Your task to perform on an android device: toggle show notifications on the lock screen Image 0: 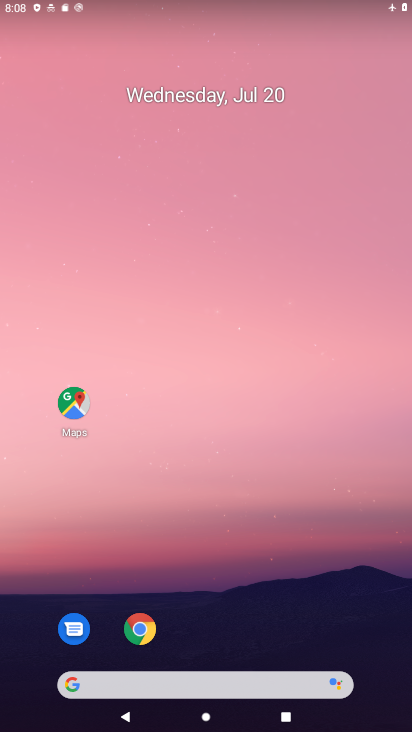
Step 0: click (313, 298)
Your task to perform on an android device: toggle show notifications on the lock screen Image 1: 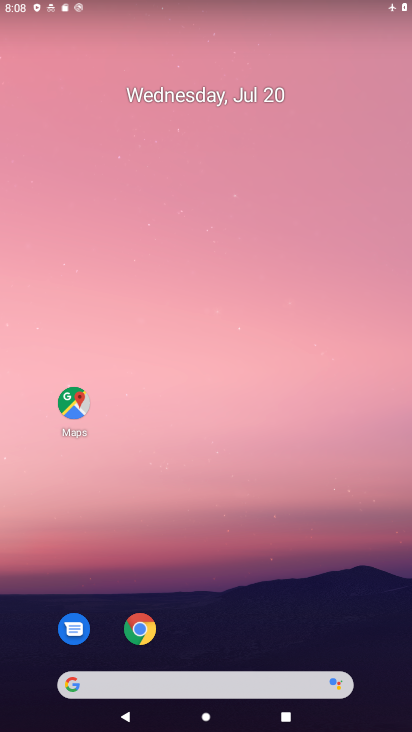
Step 1: drag from (210, 594) to (184, 407)
Your task to perform on an android device: toggle show notifications on the lock screen Image 2: 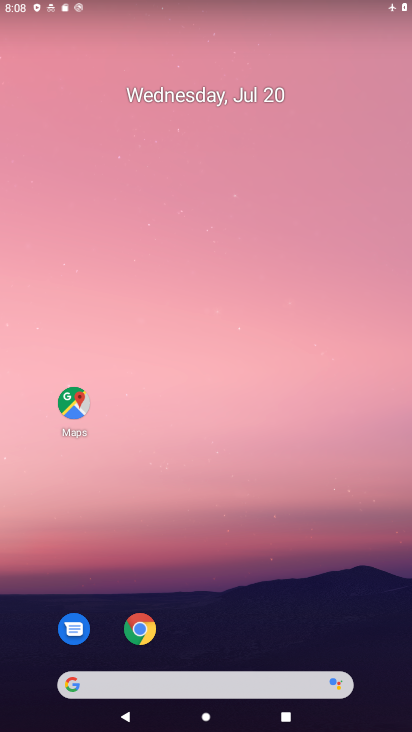
Step 2: drag from (235, 664) to (235, 190)
Your task to perform on an android device: toggle show notifications on the lock screen Image 3: 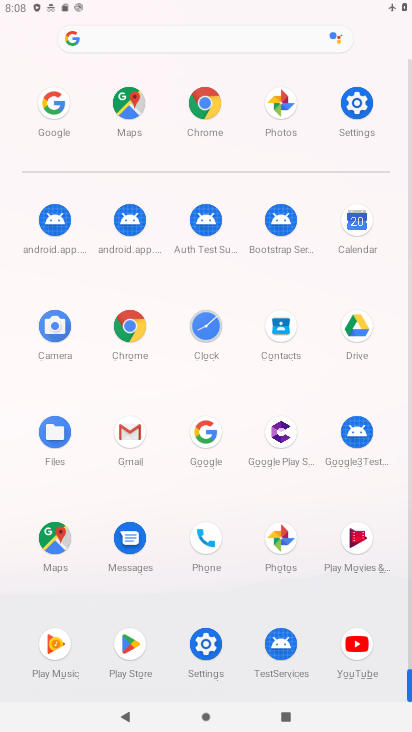
Step 3: click (364, 111)
Your task to perform on an android device: toggle show notifications on the lock screen Image 4: 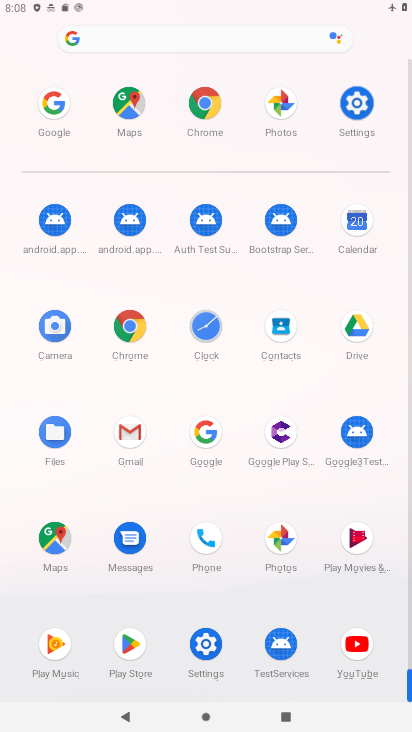
Step 4: click (364, 110)
Your task to perform on an android device: toggle show notifications on the lock screen Image 5: 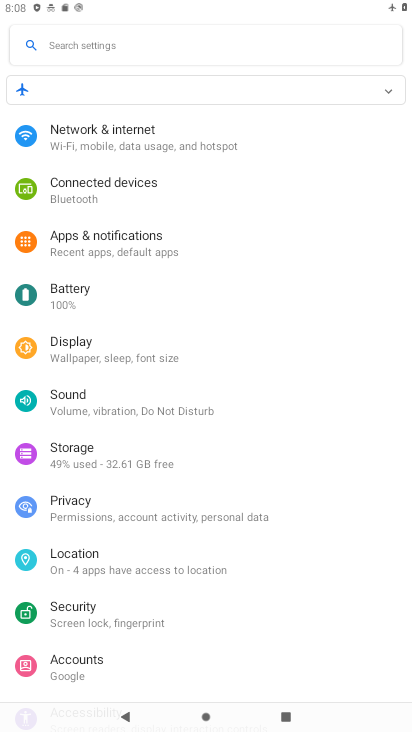
Step 5: click (109, 248)
Your task to perform on an android device: toggle show notifications on the lock screen Image 6: 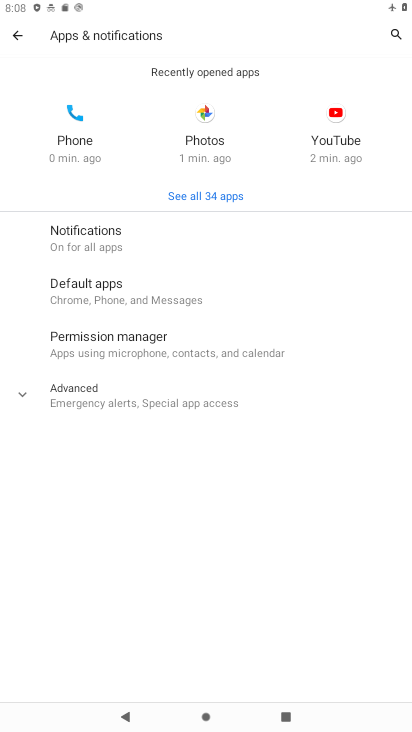
Step 6: click (83, 246)
Your task to perform on an android device: toggle show notifications on the lock screen Image 7: 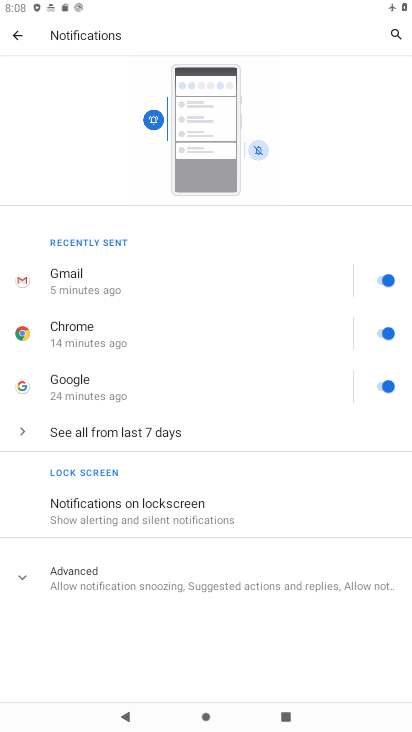
Step 7: click (129, 508)
Your task to perform on an android device: toggle show notifications on the lock screen Image 8: 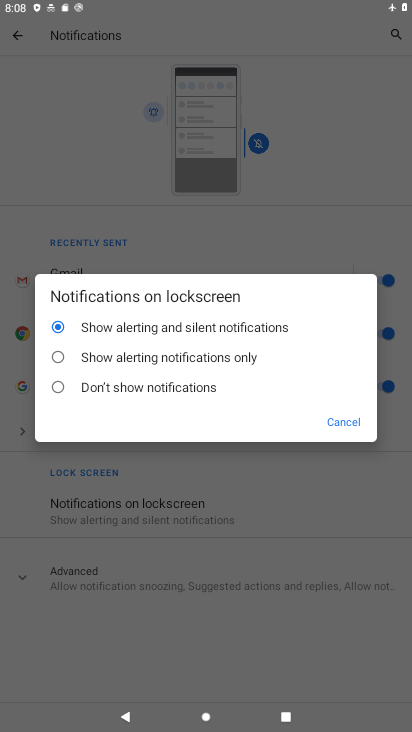
Step 8: click (54, 354)
Your task to perform on an android device: toggle show notifications on the lock screen Image 9: 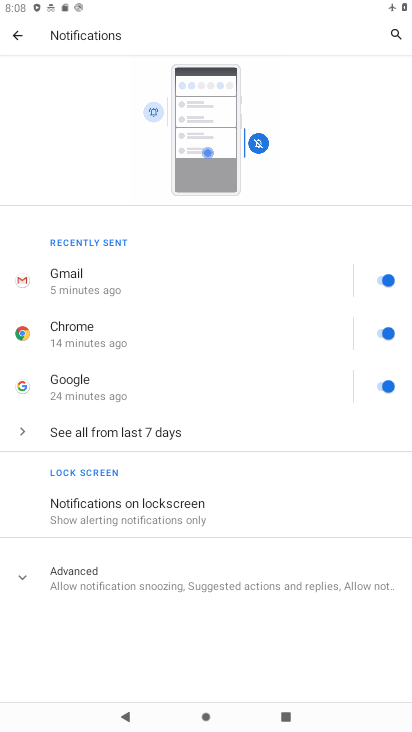
Step 9: task complete